Your task to perform on an android device: Open the Play Movies app and select the watchlist tab. Image 0: 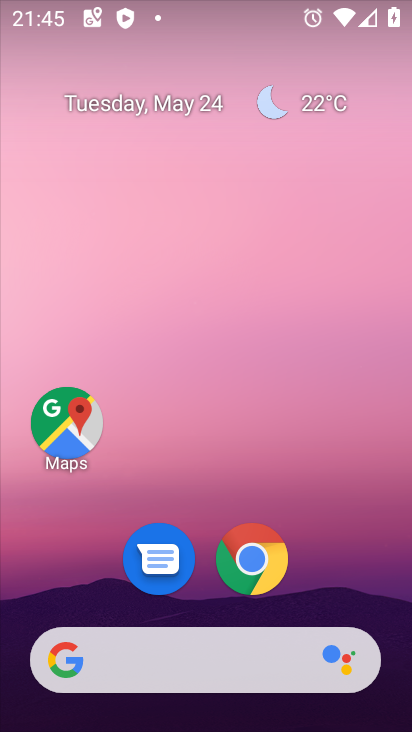
Step 0: drag from (336, 577) to (322, 95)
Your task to perform on an android device: Open the Play Movies app and select the watchlist tab. Image 1: 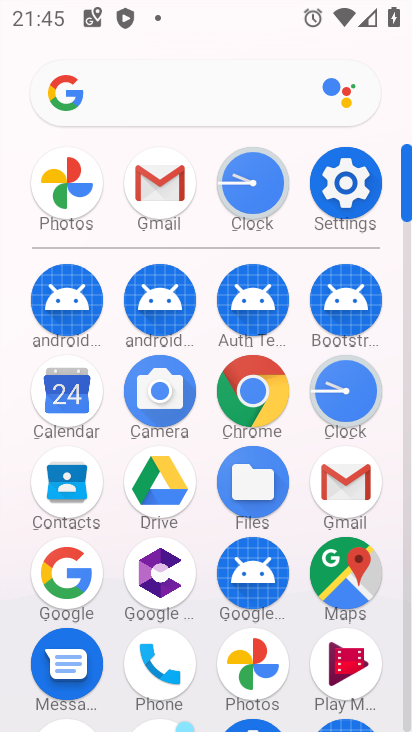
Step 1: click (341, 665)
Your task to perform on an android device: Open the Play Movies app and select the watchlist tab. Image 2: 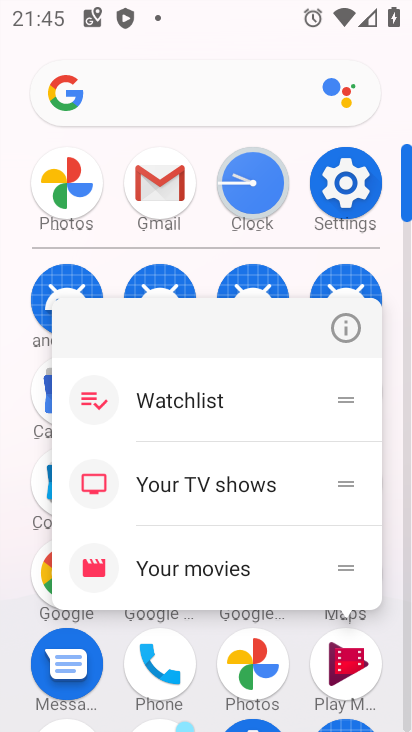
Step 2: click (354, 646)
Your task to perform on an android device: Open the Play Movies app and select the watchlist tab. Image 3: 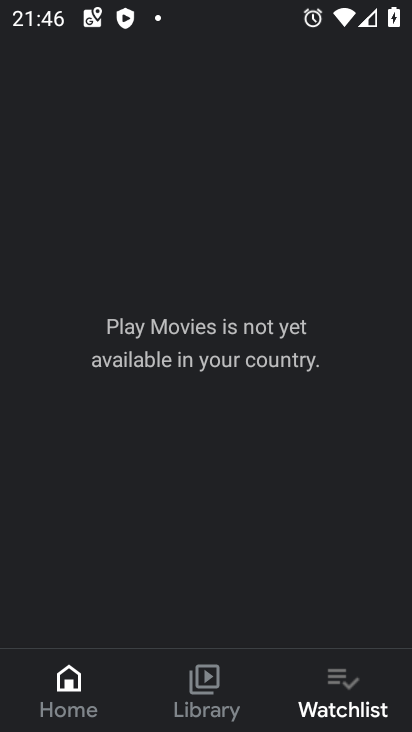
Step 3: click (347, 673)
Your task to perform on an android device: Open the Play Movies app and select the watchlist tab. Image 4: 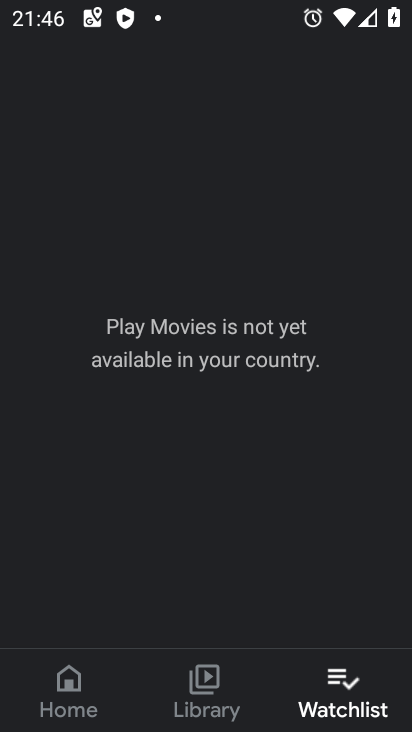
Step 4: task complete